Your task to perform on an android device: Go to Amazon Image 0: 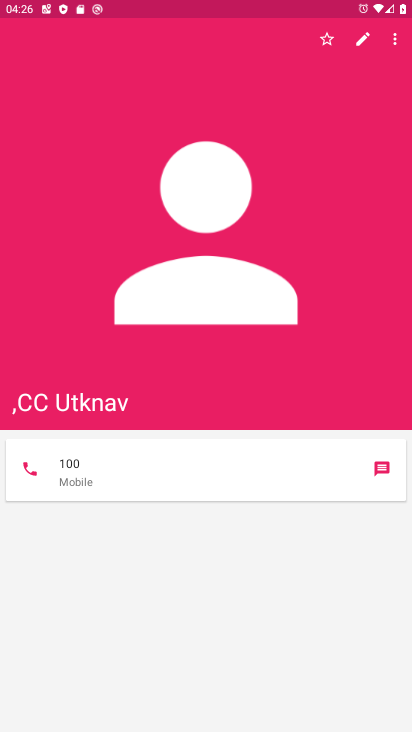
Step 0: press home button
Your task to perform on an android device: Go to Amazon Image 1: 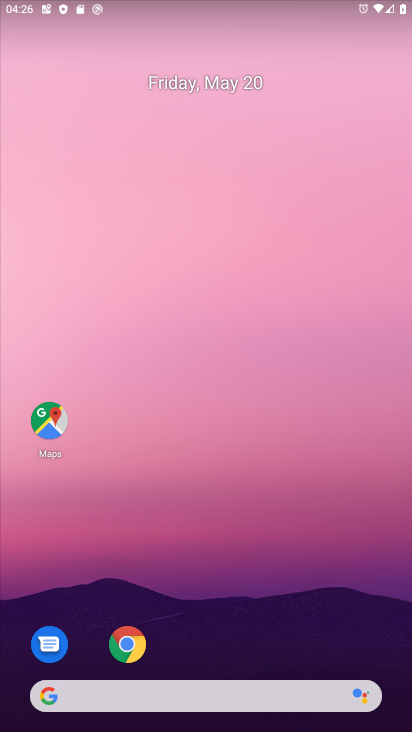
Step 1: click (131, 644)
Your task to perform on an android device: Go to Amazon Image 2: 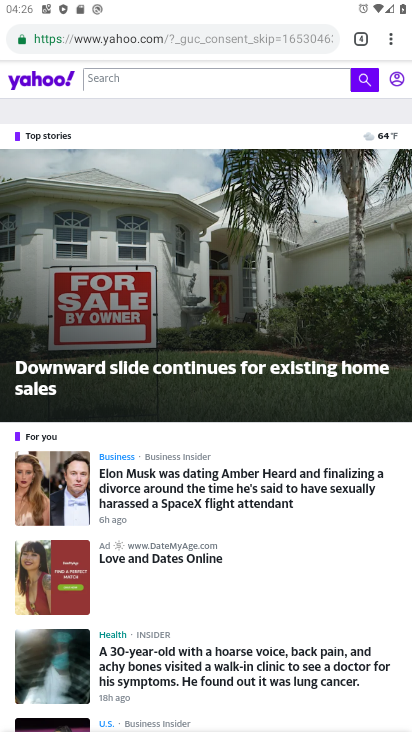
Step 2: click (202, 45)
Your task to perform on an android device: Go to Amazon Image 3: 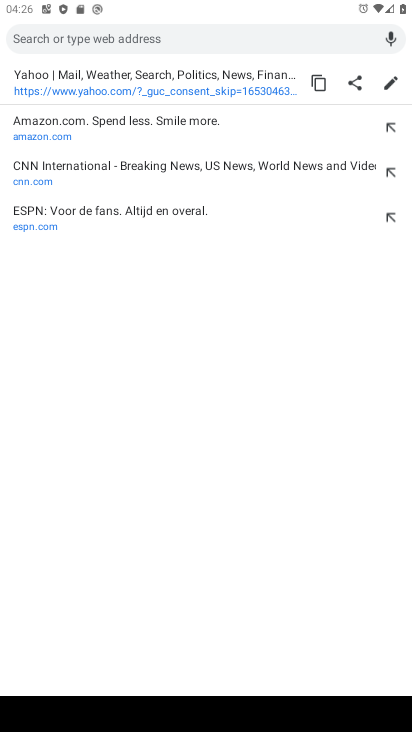
Step 3: click (286, 126)
Your task to perform on an android device: Go to Amazon Image 4: 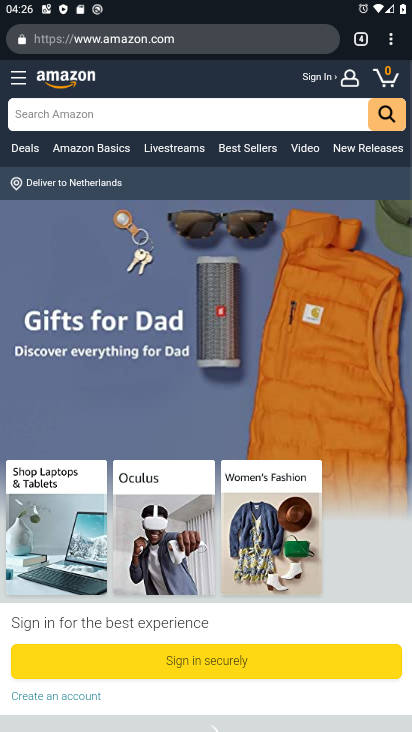
Step 4: task complete